Your task to perform on an android device: Open ESPN.com Image 0: 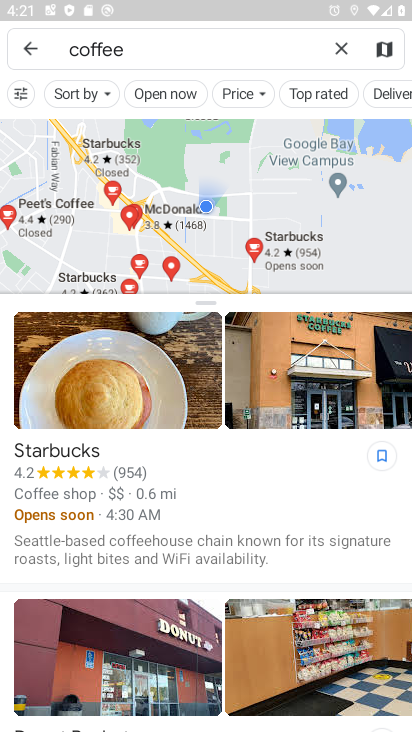
Step 0: press home button
Your task to perform on an android device: Open ESPN.com Image 1: 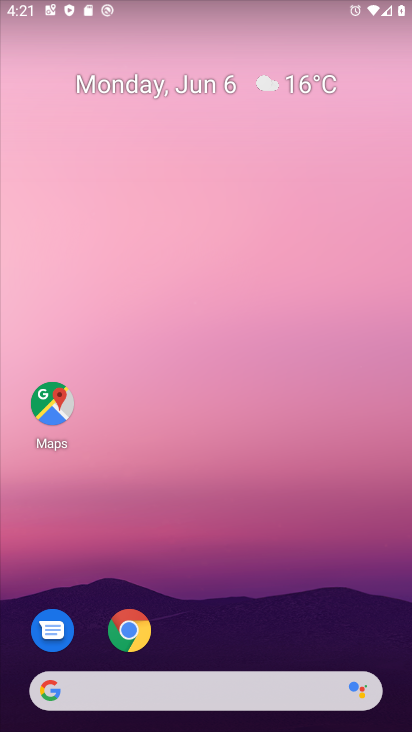
Step 1: click (132, 622)
Your task to perform on an android device: Open ESPN.com Image 2: 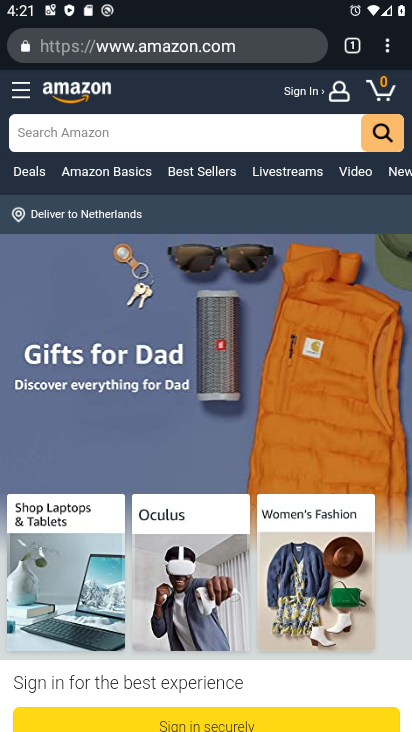
Step 2: click (352, 42)
Your task to perform on an android device: Open ESPN.com Image 3: 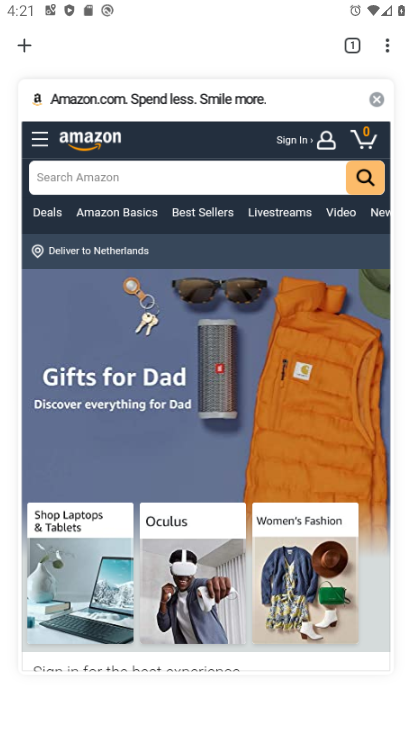
Step 3: click (21, 47)
Your task to perform on an android device: Open ESPN.com Image 4: 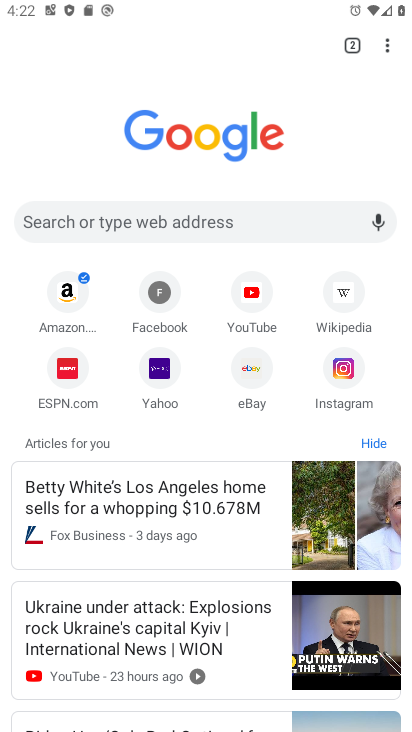
Step 4: click (68, 383)
Your task to perform on an android device: Open ESPN.com Image 5: 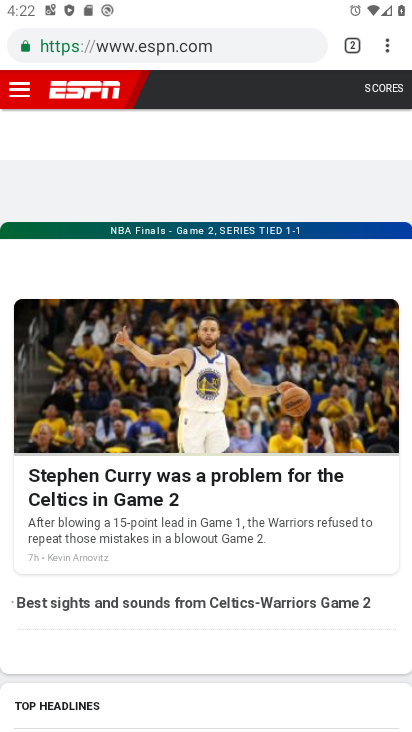
Step 5: task complete